Your task to perform on an android device: Show me popular videos on Youtube Image 0: 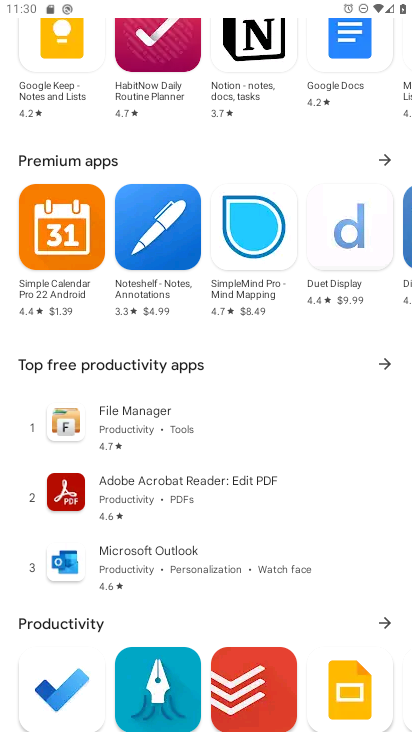
Step 0: press home button
Your task to perform on an android device: Show me popular videos on Youtube Image 1: 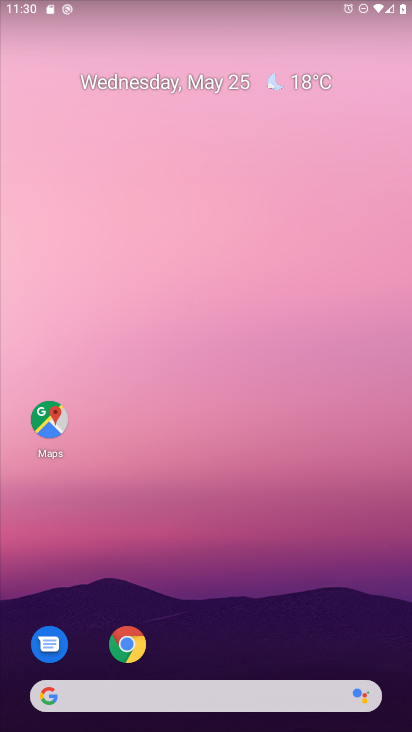
Step 1: drag from (206, 662) to (216, 42)
Your task to perform on an android device: Show me popular videos on Youtube Image 2: 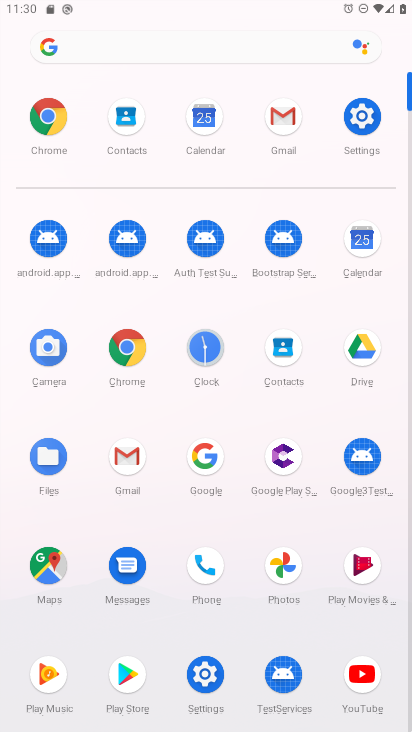
Step 2: click (358, 665)
Your task to perform on an android device: Show me popular videos on Youtube Image 3: 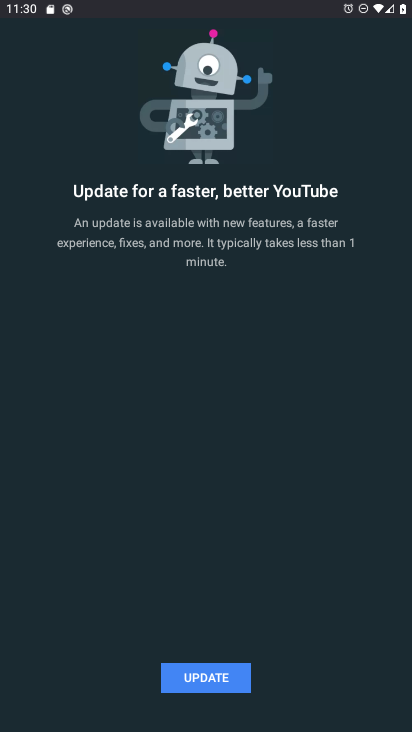
Step 3: click (210, 674)
Your task to perform on an android device: Show me popular videos on Youtube Image 4: 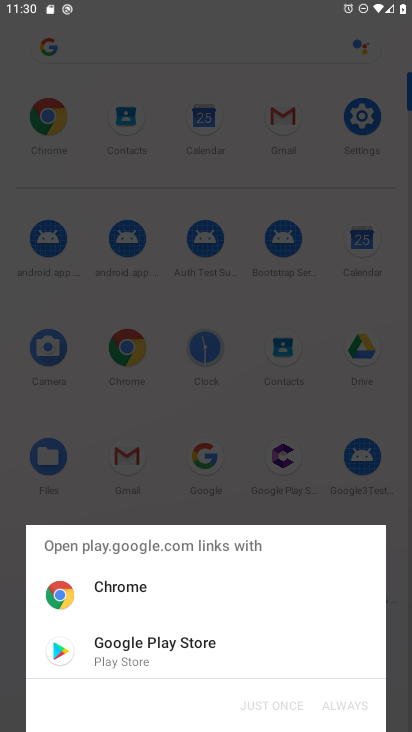
Step 4: click (88, 653)
Your task to perform on an android device: Show me popular videos on Youtube Image 5: 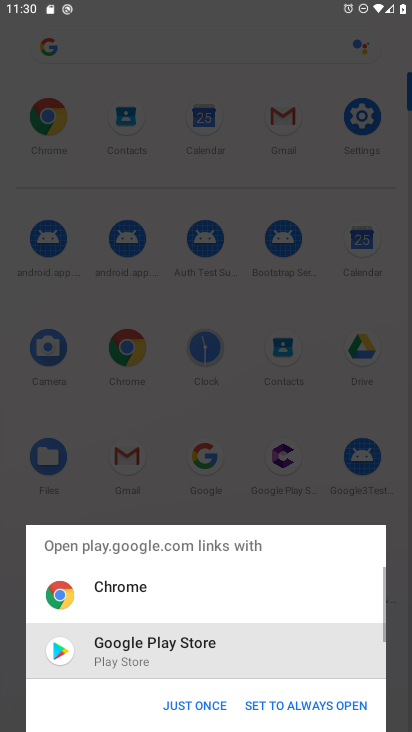
Step 5: click (174, 705)
Your task to perform on an android device: Show me popular videos on Youtube Image 6: 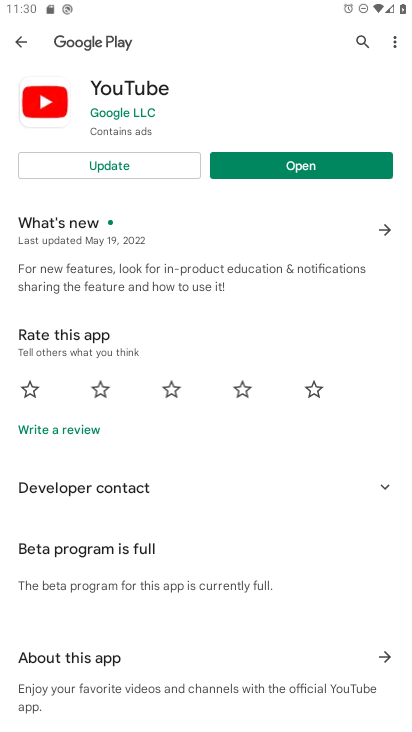
Step 6: click (108, 163)
Your task to perform on an android device: Show me popular videos on Youtube Image 7: 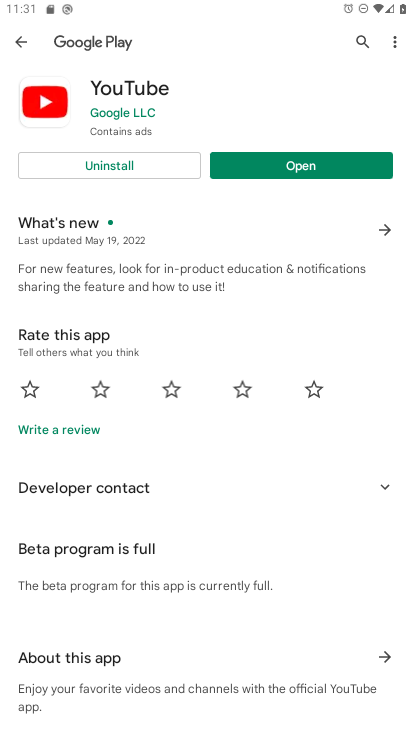
Step 7: click (311, 159)
Your task to perform on an android device: Show me popular videos on Youtube Image 8: 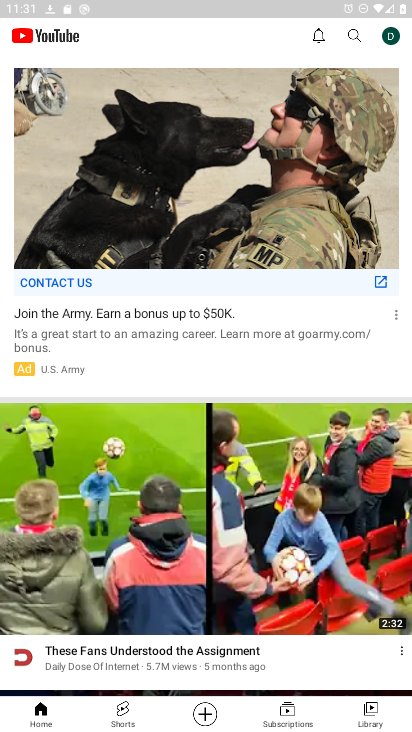
Step 8: drag from (151, 534) to (156, 120)
Your task to perform on an android device: Show me popular videos on Youtube Image 9: 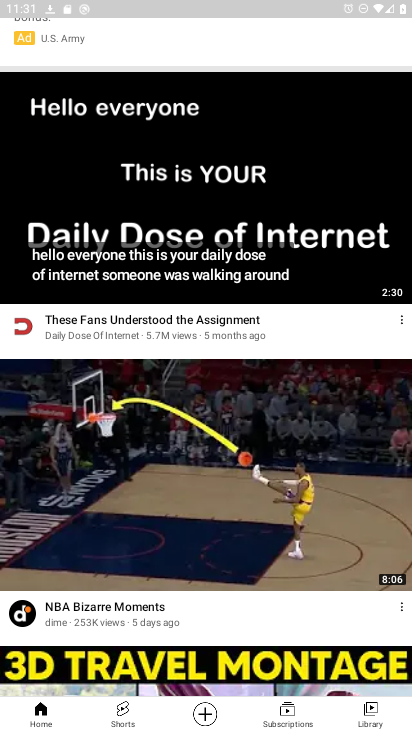
Step 9: drag from (165, 203) to (144, 572)
Your task to perform on an android device: Show me popular videos on Youtube Image 10: 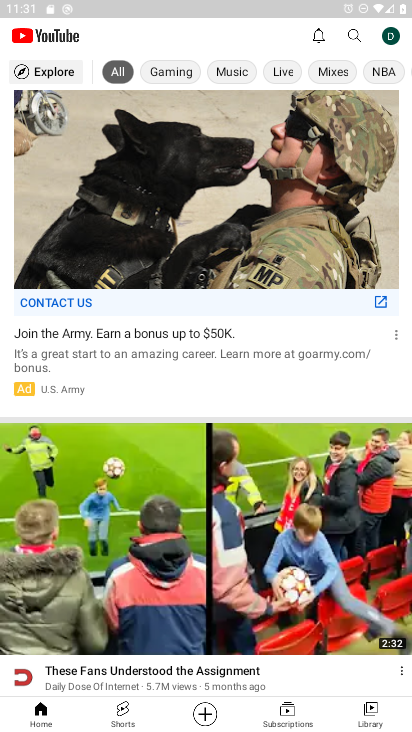
Step 10: click (44, 70)
Your task to perform on an android device: Show me popular videos on Youtube Image 11: 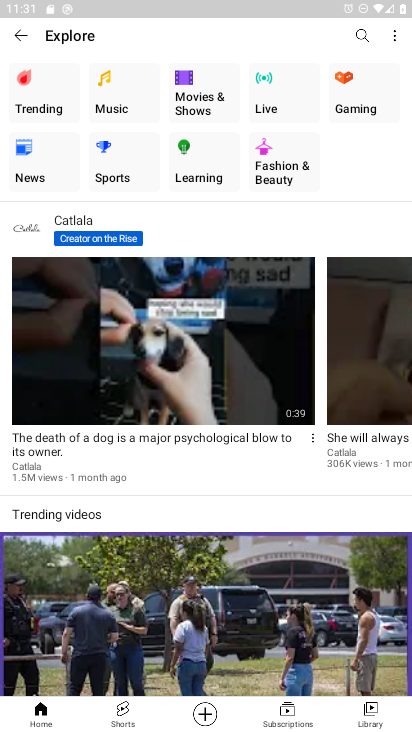
Step 11: click (36, 78)
Your task to perform on an android device: Show me popular videos on Youtube Image 12: 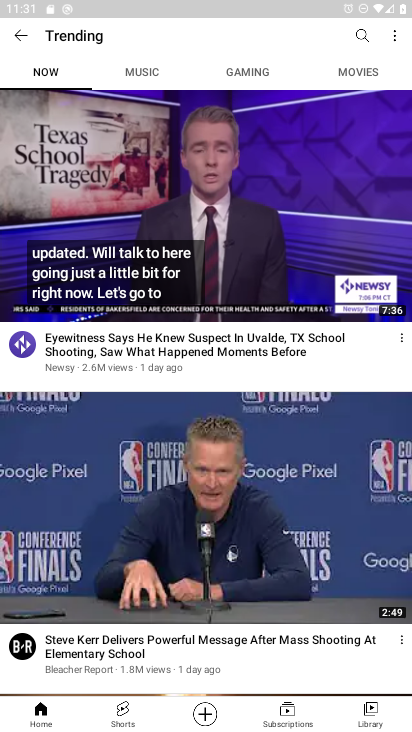
Step 12: task complete